Your task to perform on an android device: Show me popular games on the Play Store Image 0: 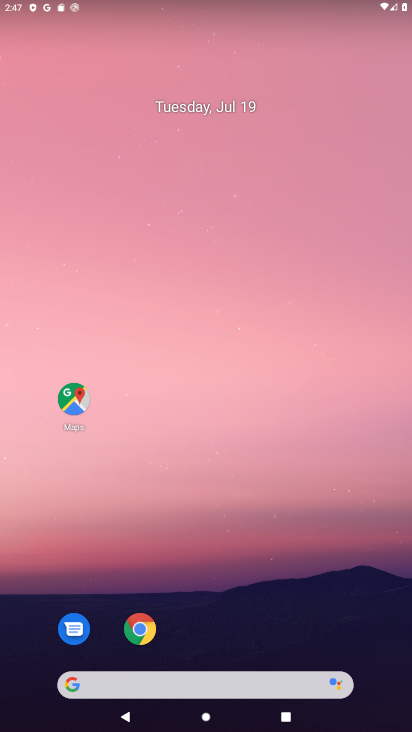
Step 0: drag from (284, 619) to (253, 159)
Your task to perform on an android device: Show me popular games on the Play Store Image 1: 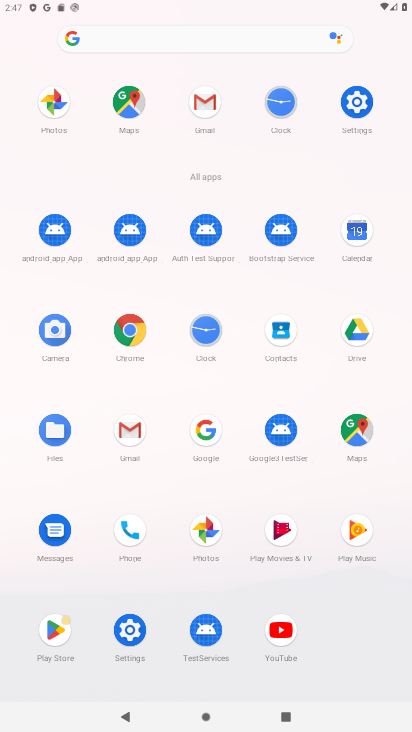
Step 1: click (55, 615)
Your task to perform on an android device: Show me popular games on the Play Store Image 2: 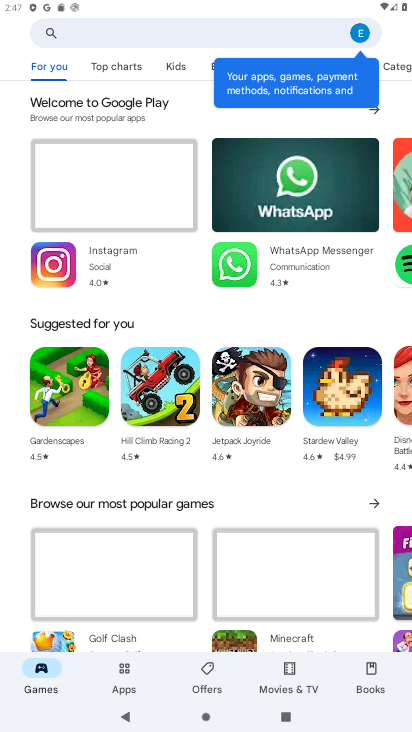
Step 2: click (200, 504)
Your task to perform on an android device: Show me popular games on the Play Store Image 3: 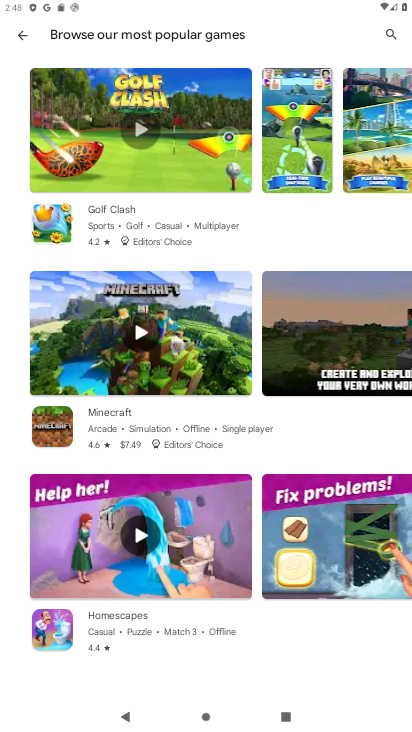
Step 3: task complete